Your task to perform on an android device: make emails show in primary in the gmail app Image 0: 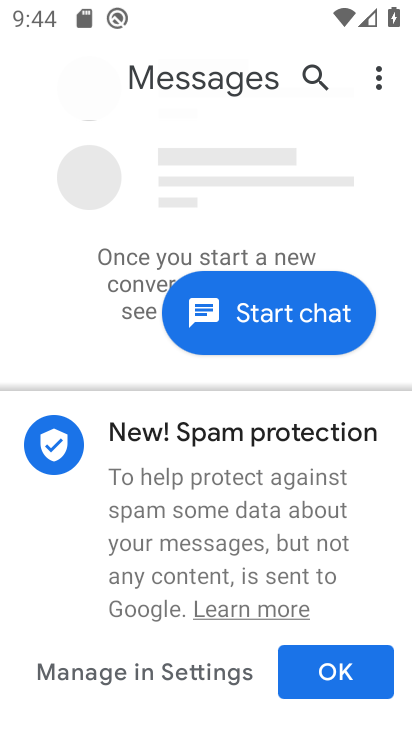
Step 0: press home button
Your task to perform on an android device: make emails show in primary in the gmail app Image 1: 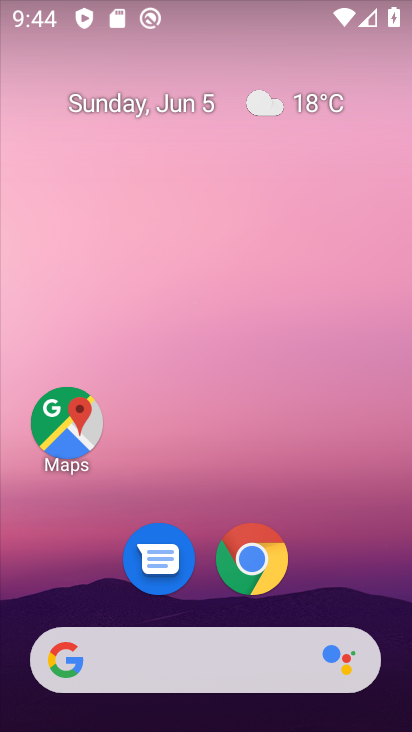
Step 1: drag from (397, 701) to (353, 80)
Your task to perform on an android device: make emails show in primary in the gmail app Image 2: 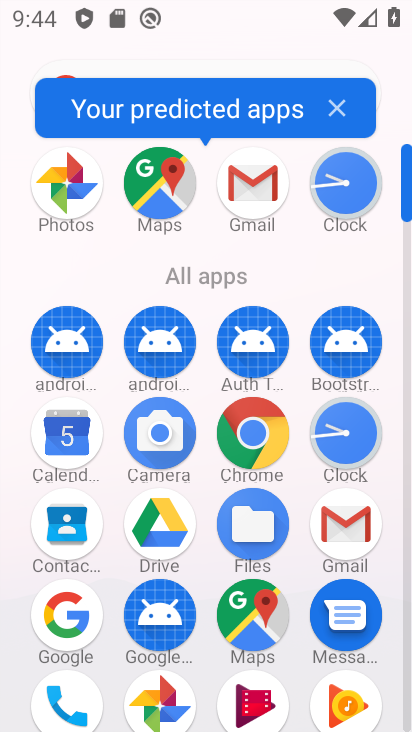
Step 2: click (266, 190)
Your task to perform on an android device: make emails show in primary in the gmail app Image 3: 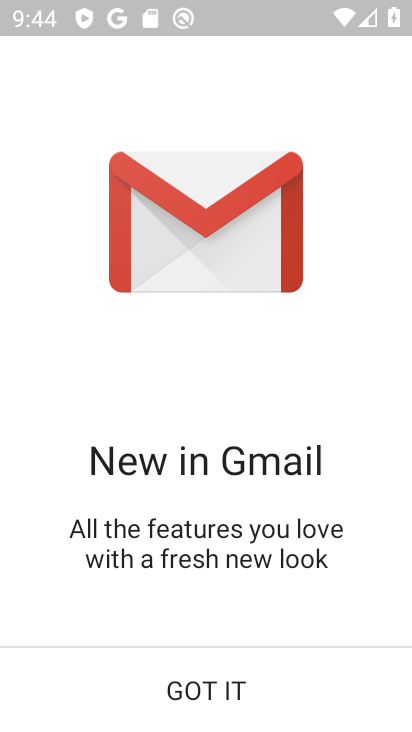
Step 3: click (182, 707)
Your task to perform on an android device: make emails show in primary in the gmail app Image 4: 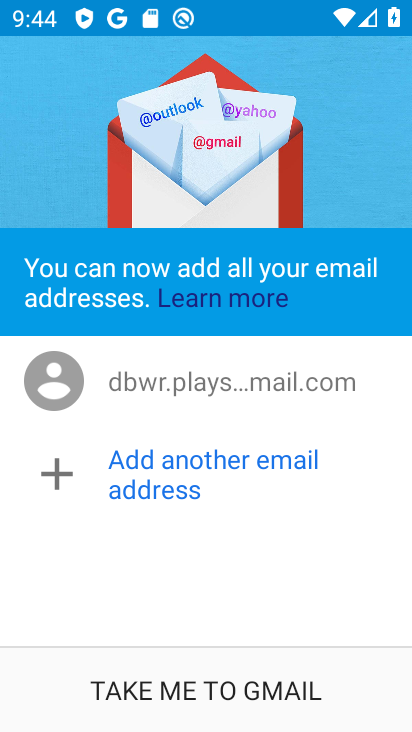
Step 4: click (186, 694)
Your task to perform on an android device: make emails show in primary in the gmail app Image 5: 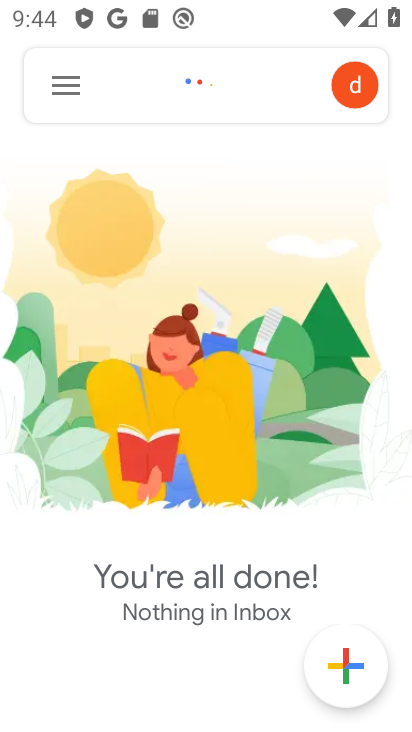
Step 5: click (69, 75)
Your task to perform on an android device: make emails show in primary in the gmail app Image 6: 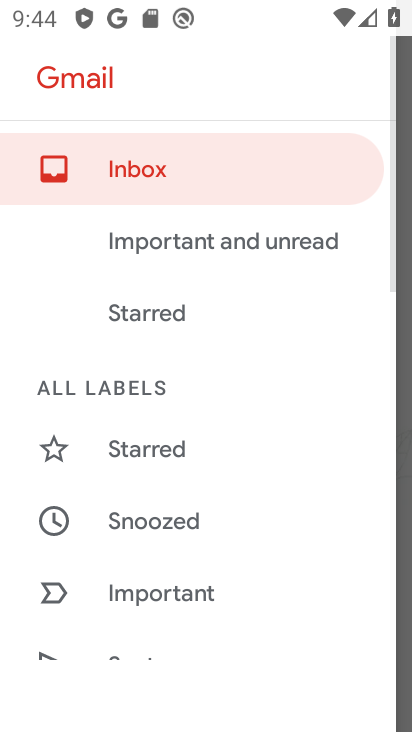
Step 6: drag from (314, 633) to (297, 79)
Your task to perform on an android device: make emails show in primary in the gmail app Image 7: 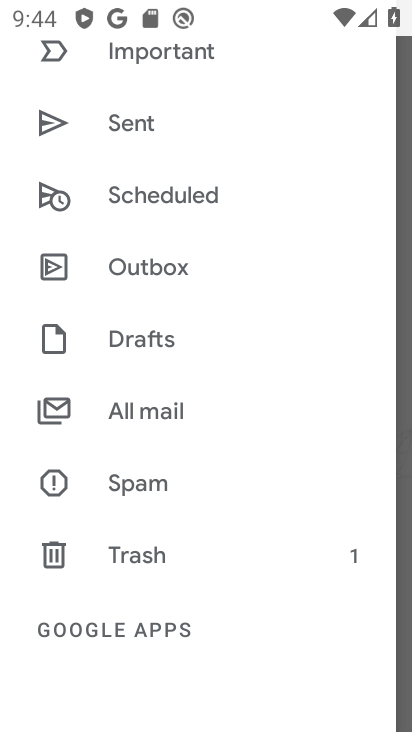
Step 7: drag from (270, 602) to (252, 251)
Your task to perform on an android device: make emails show in primary in the gmail app Image 8: 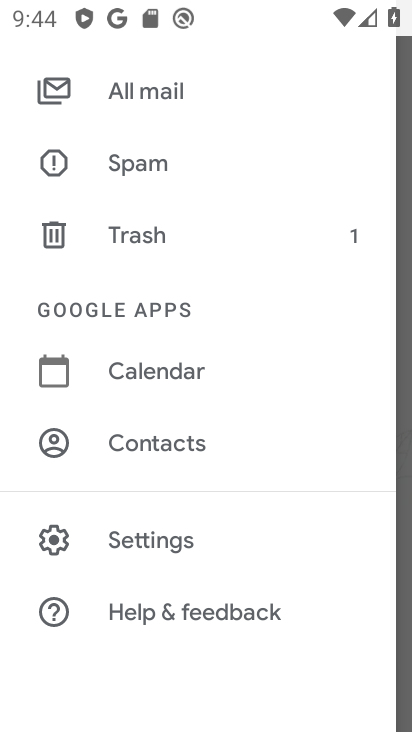
Step 8: click (149, 553)
Your task to perform on an android device: make emails show in primary in the gmail app Image 9: 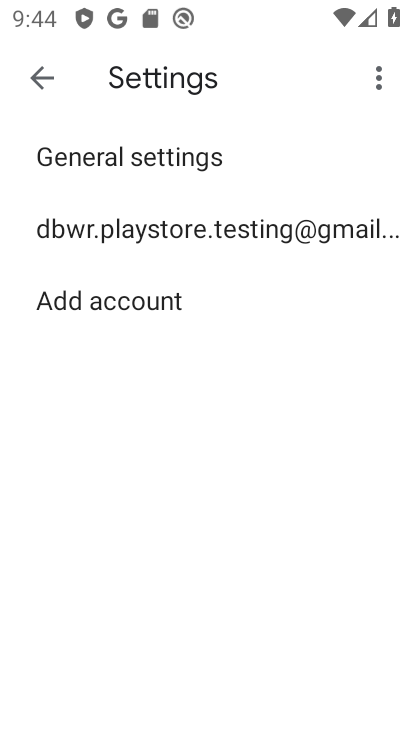
Step 9: click (85, 221)
Your task to perform on an android device: make emails show in primary in the gmail app Image 10: 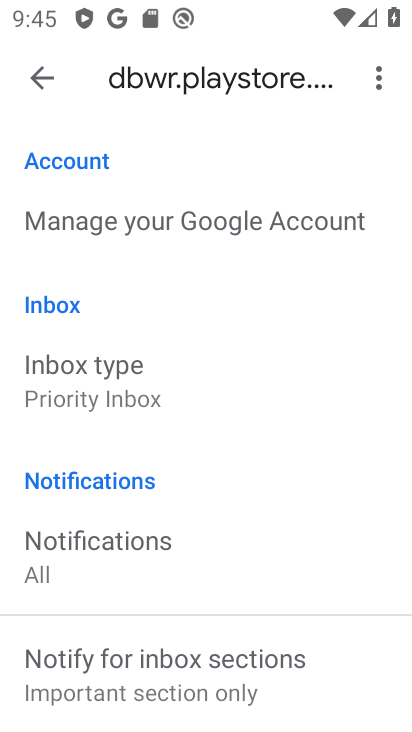
Step 10: click (92, 394)
Your task to perform on an android device: make emails show in primary in the gmail app Image 11: 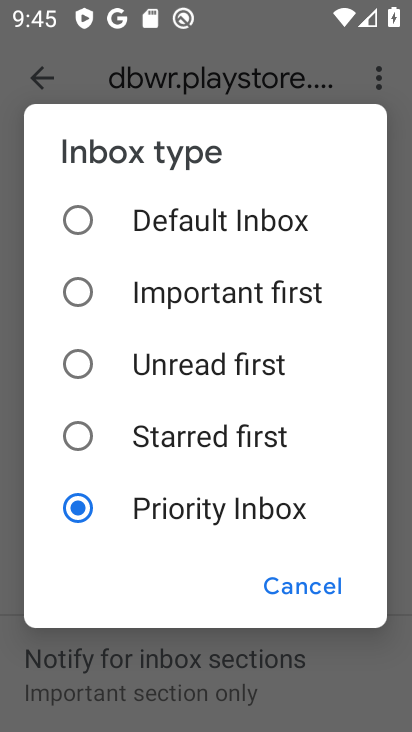
Step 11: click (86, 213)
Your task to perform on an android device: make emails show in primary in the gmail app Image 12: 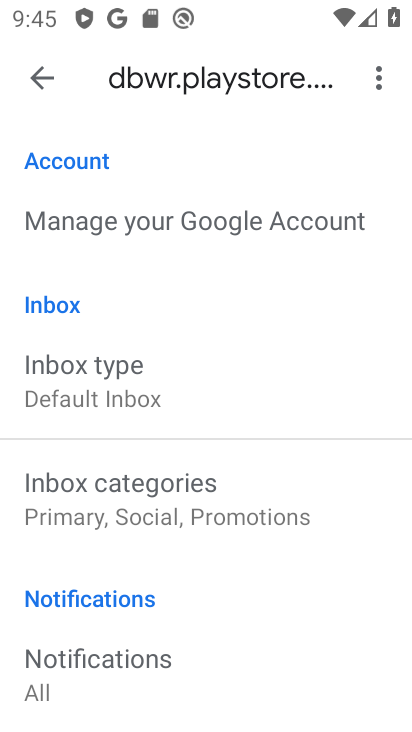
Step 12: click (86, 504)
Your task to perform on an android device: make emails show in primary in the gmail app Image 13: 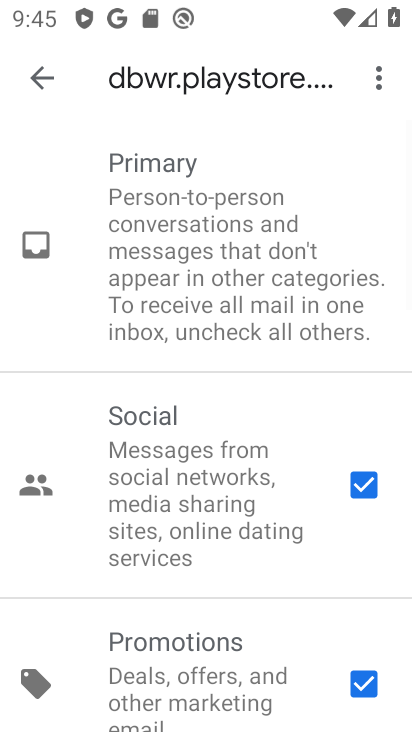
Step 13: click (359, 479)
Your task to perform on an android device: make emails show in primary in the gmail app Image 14: 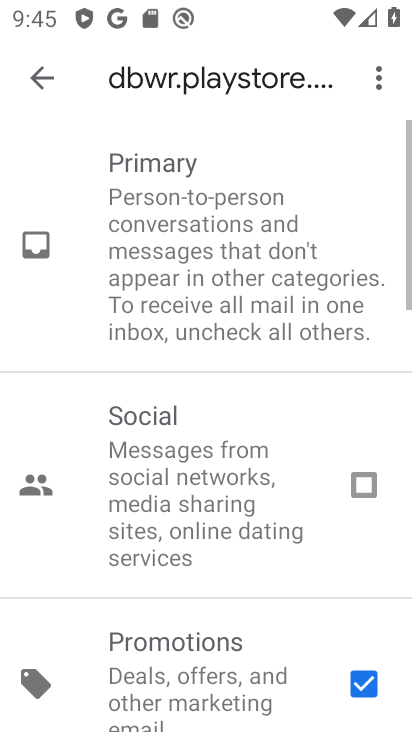
Step 14: click (350, 676)
Your task to perform on an android device: make emails show in primary in the gmail app Image 15: 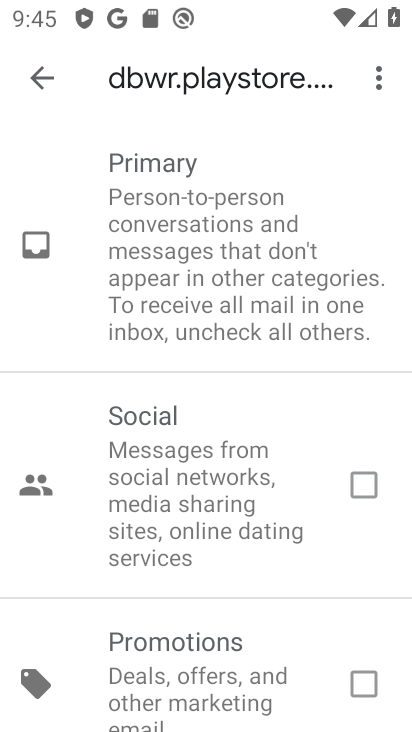
Step 15: task complete